Your task to perform on an android device: Go to Yahoo.com Image 0: 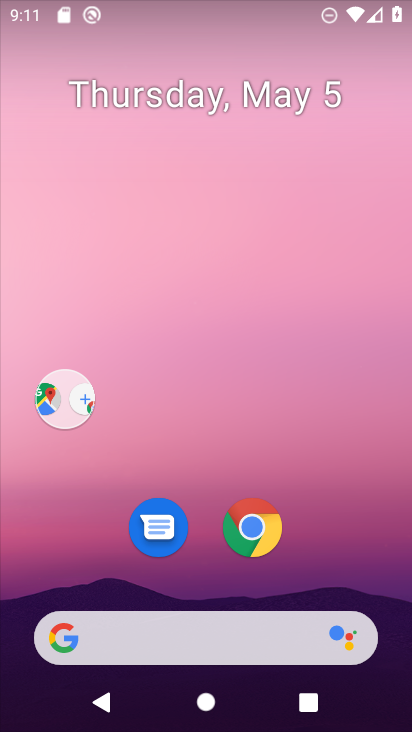
Step 0: drag from (369, 593) to (201, 21)
Your task to perform on an android device: Go to Yahoo.com Image 1: 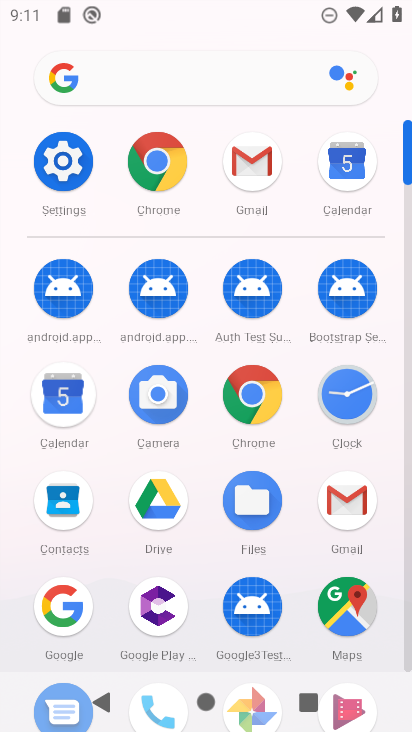
Step 1: click (163, 163)
Your task to perform on an android device: Go to Yahoo.com Image 2: 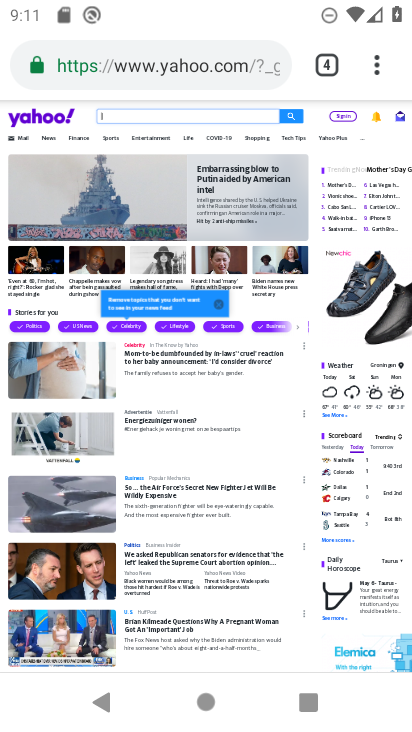
Step 2: task complete